Your task to perform on an android device: toggle pop-ups in chrome Image 0: 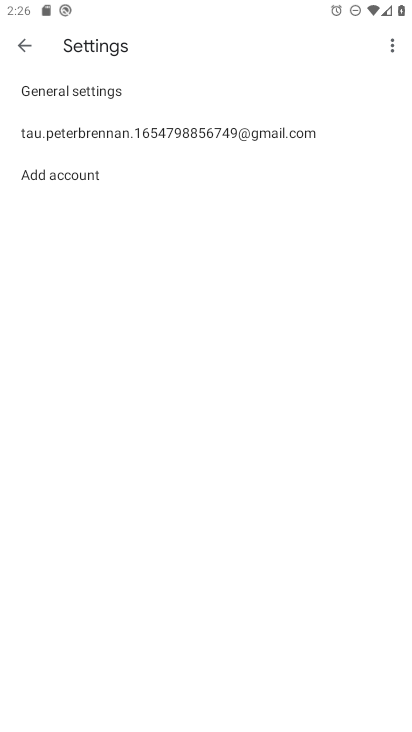
Step 0: press home button
Your task to perform on an android device: toggle pop-ups in chrome Image 1: 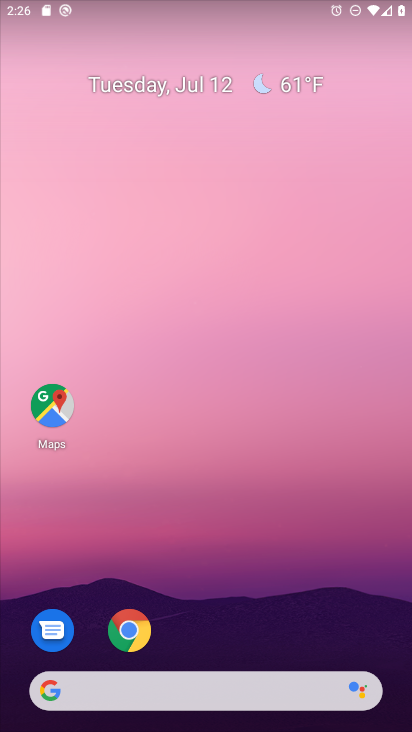
Step 1: click (143, 620)
Your task to perform on an android device: toggle pop-ups in chrome Image 2: 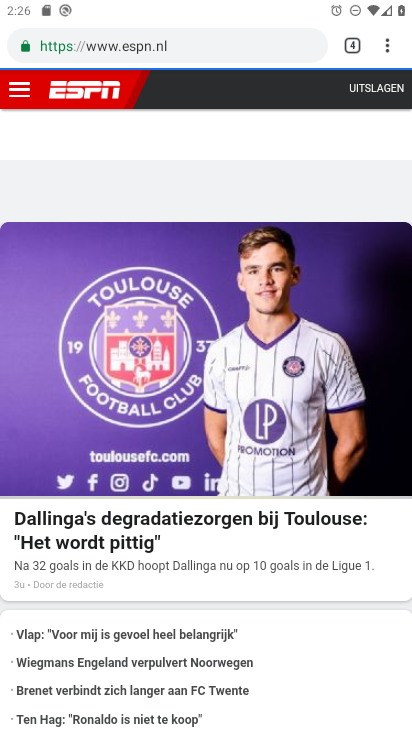
Step 2: click (393, 40)
Your task to perform on an android device: toggle pop-ups in chrome Image 3: 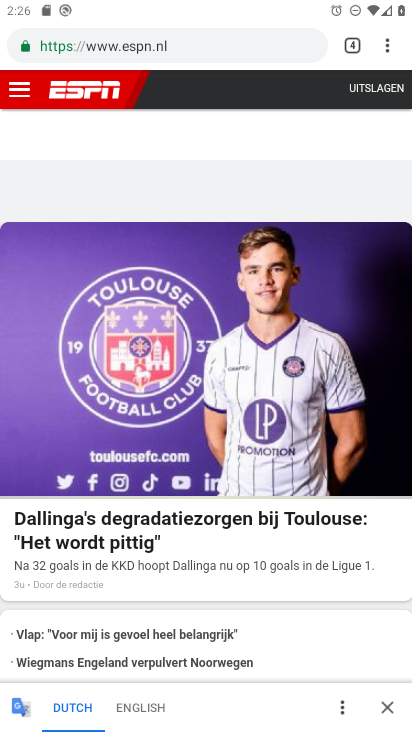
Step 3: click (380, 48)
Your task to perform on an android device: toggle pop-ups in chrome Image 4: 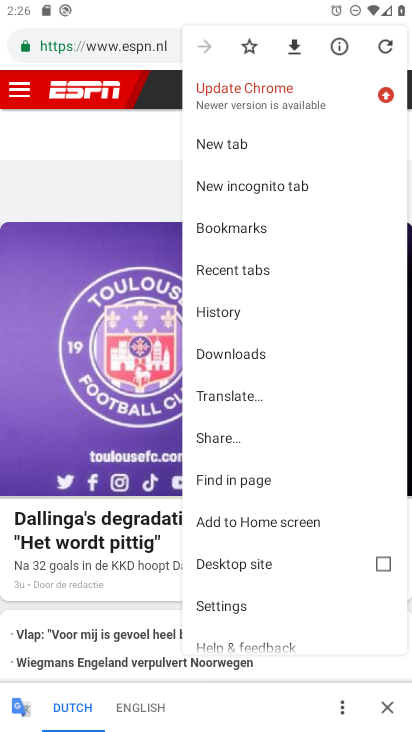
Step 4: click (241, 603)
Your task to perform on an android device: toggle pop-ups in chrome Image 5: 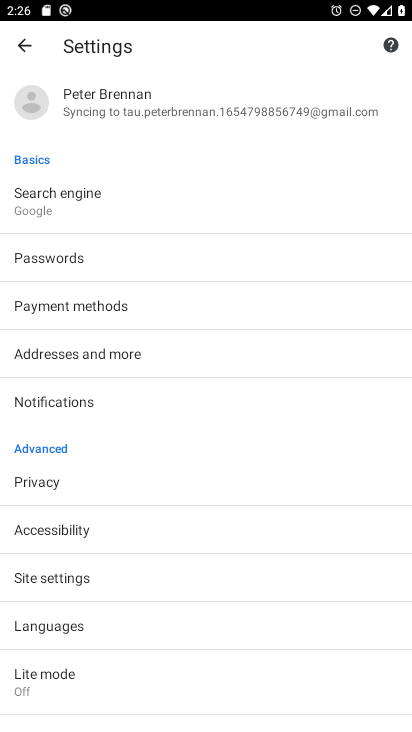
Step 5: click (99, 584)
Your task to perform on an android device: toggle pop-ups in chrome Image 6: 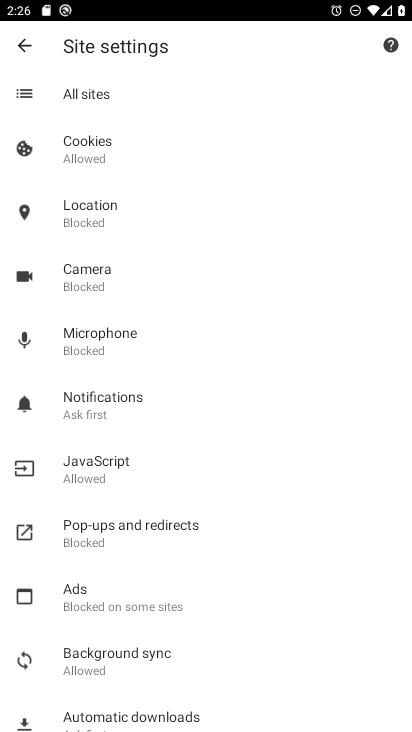
Step 6: click (153, 541)
Your task to perform on an android device: toggle pop-ups in chrome Image 7: 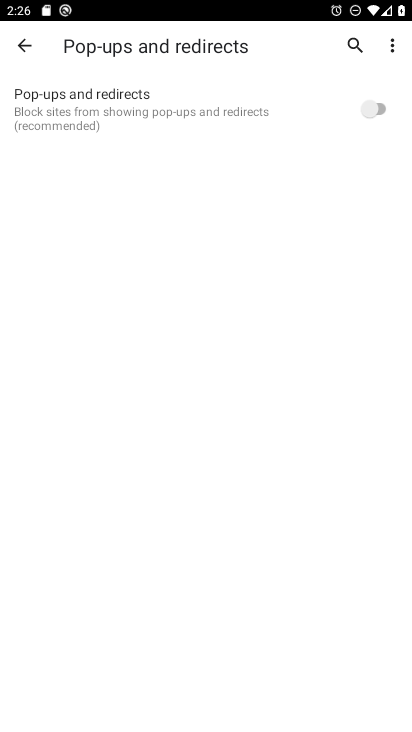
Step 7: click (378, 103)
Your task to perform on an android device: toggle pop-ups in chrome Image 8: 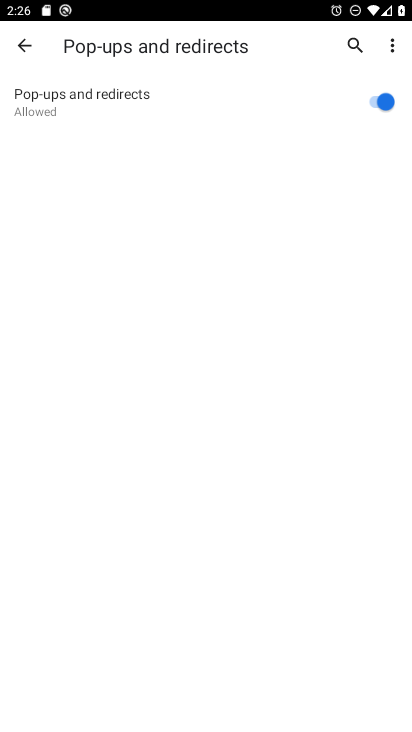
Step 8: task complete